Your task to perform on an android device: Open display settings Image 0: 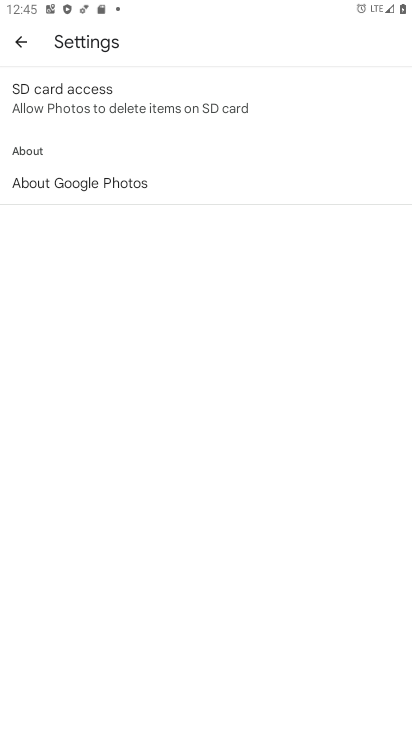
Step 0: press home button
Your task to perform on an android device: Open display settings Image 1: 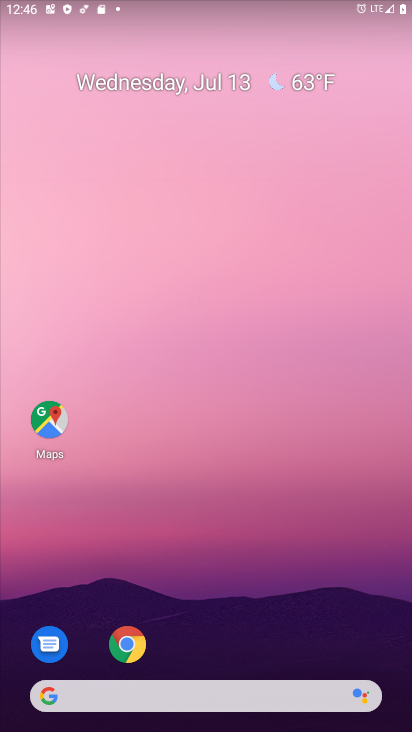
Step 1: drag from (231, 654) to (263, 386)
Your task to perform on an android device: Open display settings Image 2: 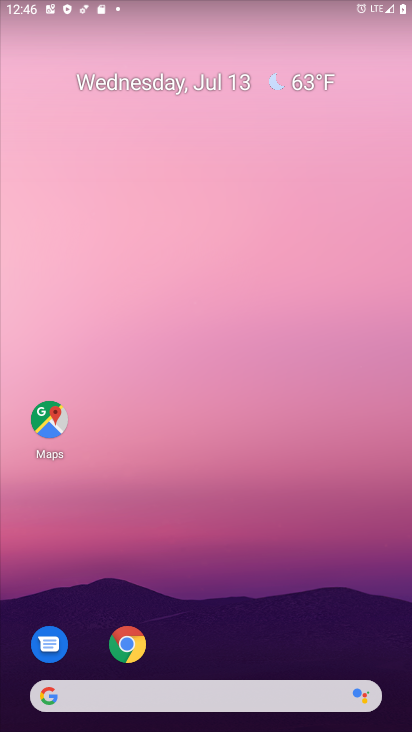
Step 2: drag from (162, 699) to (311, 180)
Your task to perform on an android device: Open display settings Image 3: 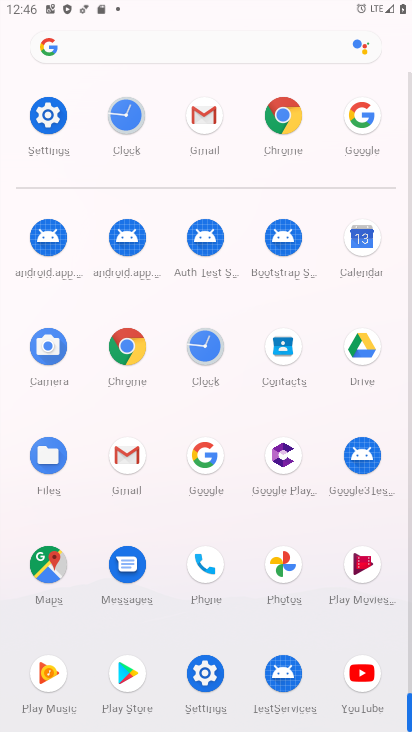
Step 3: click (45, 118)
Your task to perform on an android device: Open display settings Image 4: 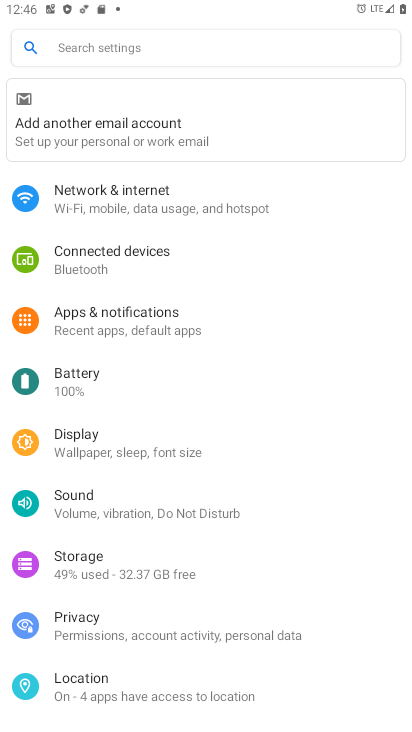
Step 4: click (105, 449)
Your task to perform on an android device: Open display settings Image 5: 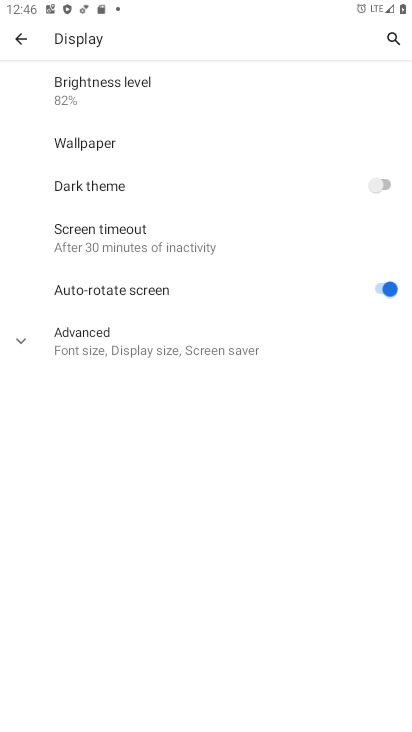
Step 5: task complete